Your task to perform on an android device: Open notification settings Image 0: 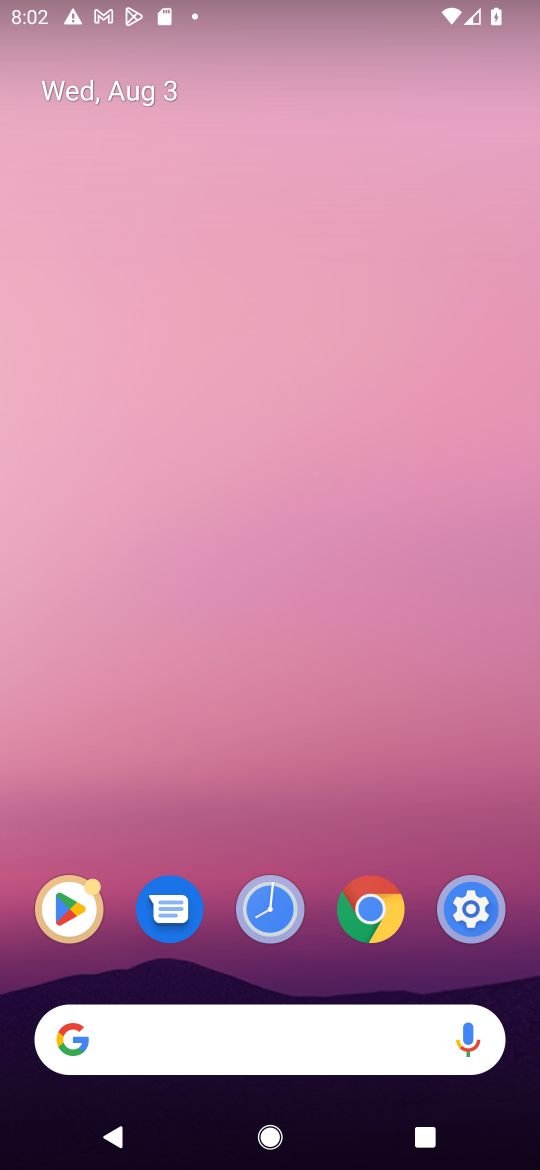
Step 0: drag from (403, 802) to (450, 150)
Your task to perform on an android device: Open notification settings Image 1: 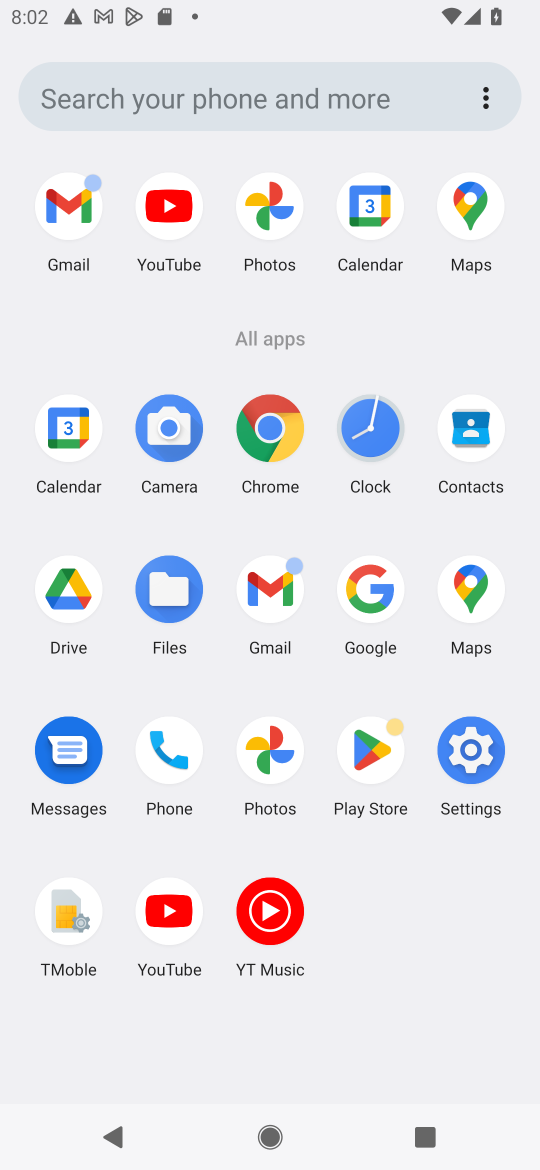
Step 1: click (470, 753)
Your task to perform on an android device: Open notification settings Image 2: 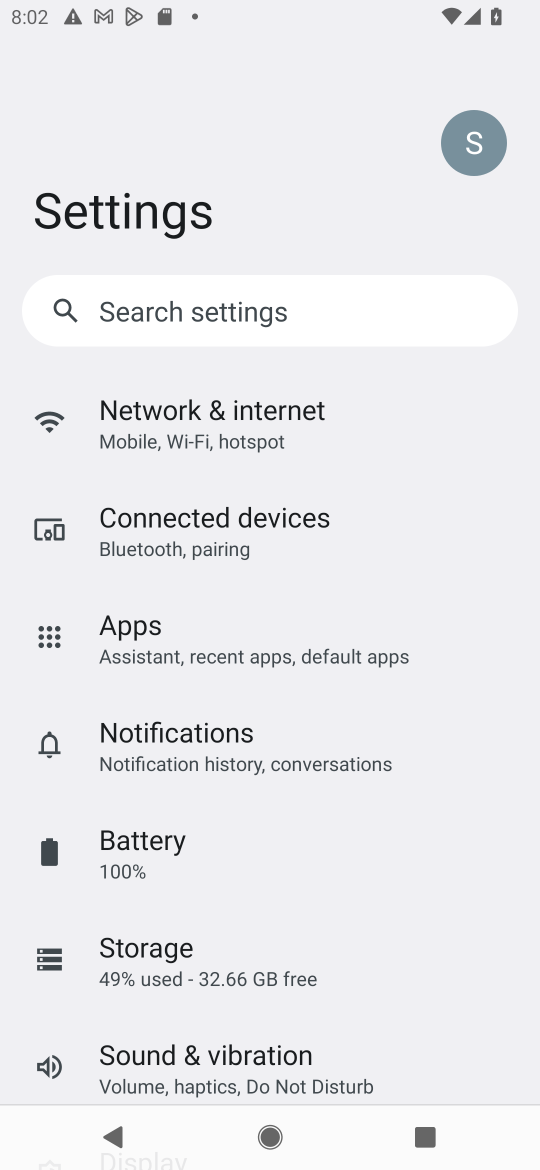
Step 2: drag from (475, 852) to (476, 672)
Your task to perform on an android device: Open notification settings Image 3: 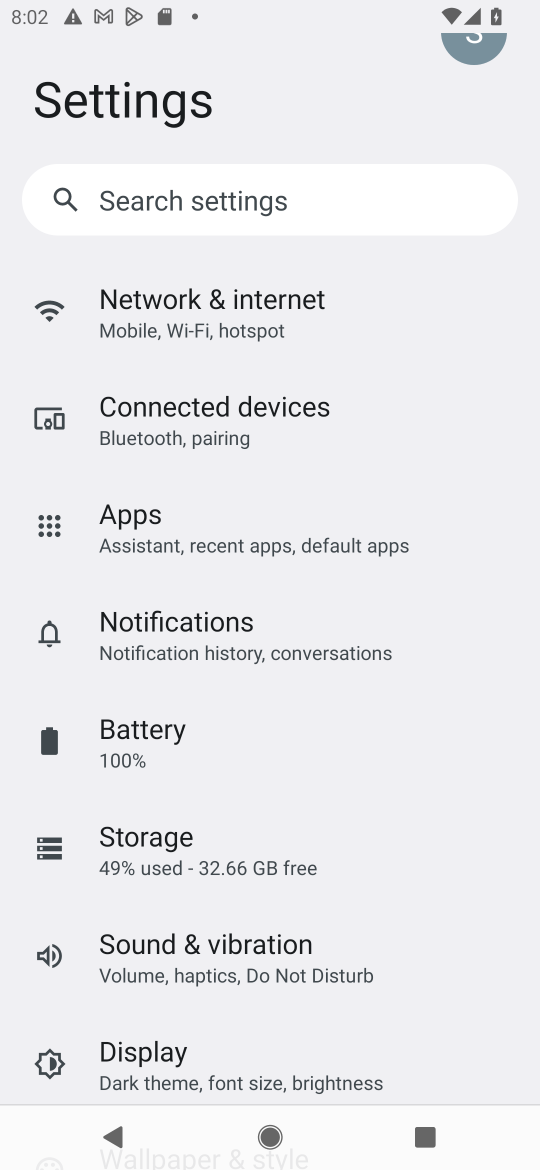
Step 3: drag from (442, 896) to (448, 746)
Your task to perform on an android device: Open notification settings Image 4: 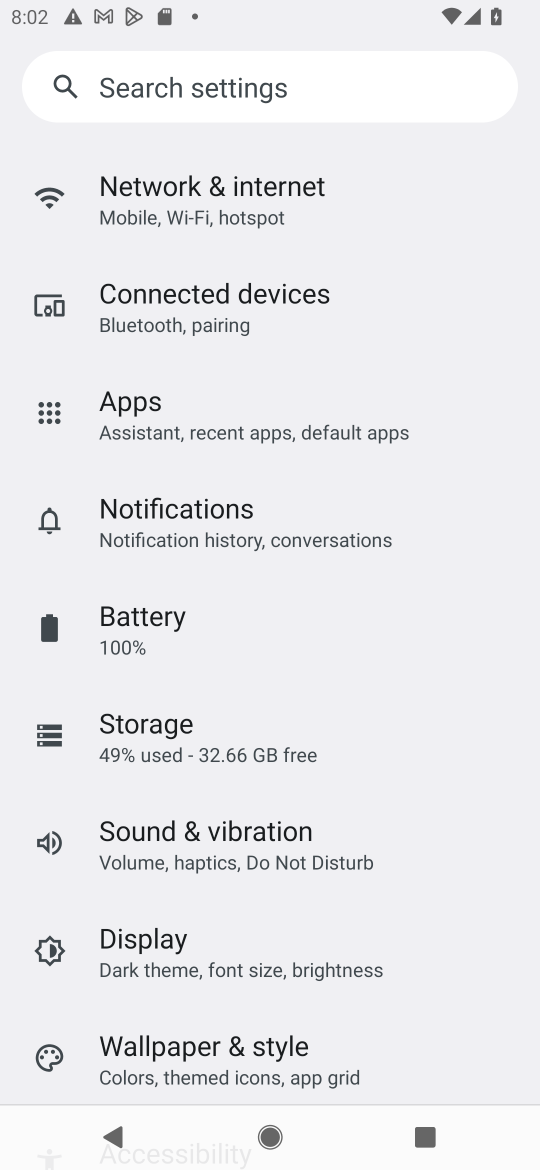
Step 4: drag from (480, 1000) to (474, 743)
Your task to perform on an android device: Open notification settings Image 5: 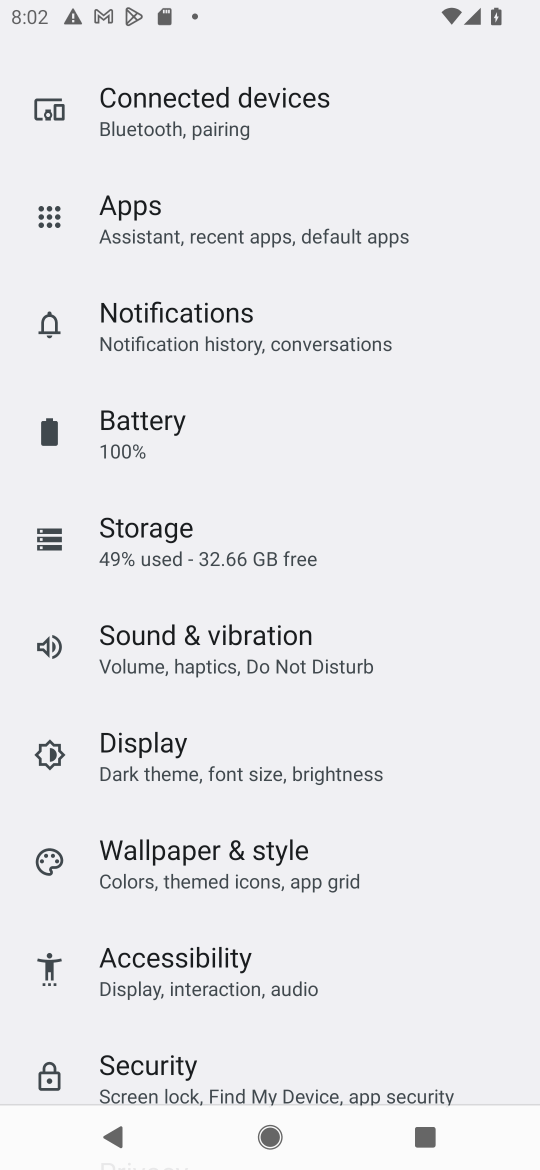
Step 5: drag from (429, 940) to (459, 569)
Your task to perform on an android device: Open notification settings Image 6: 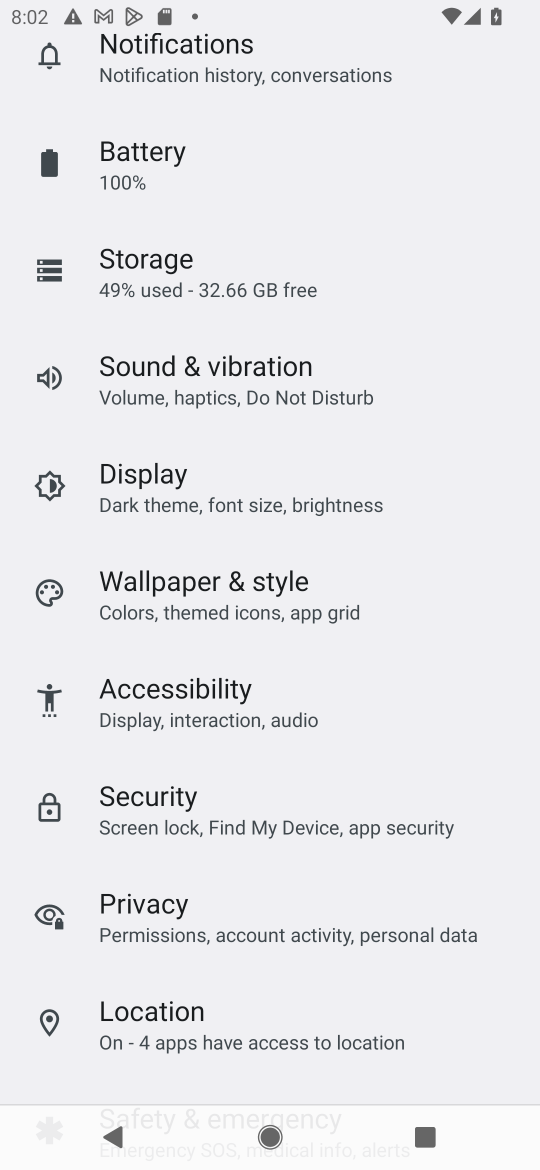
Step 6: drag from (460, 1011) to (474, 759)
Your task to perform on an android device: Open notification settings Image 7: 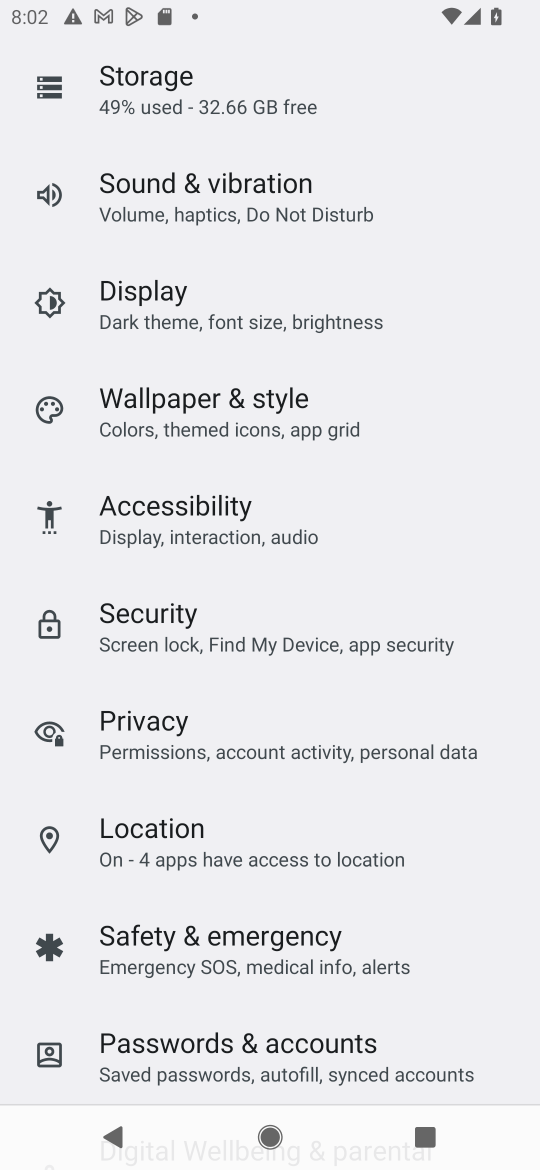
Step 7: drag from (461, 1006) to (460, 695)
Your task to perform on an android device: Open notification settings Image 8: 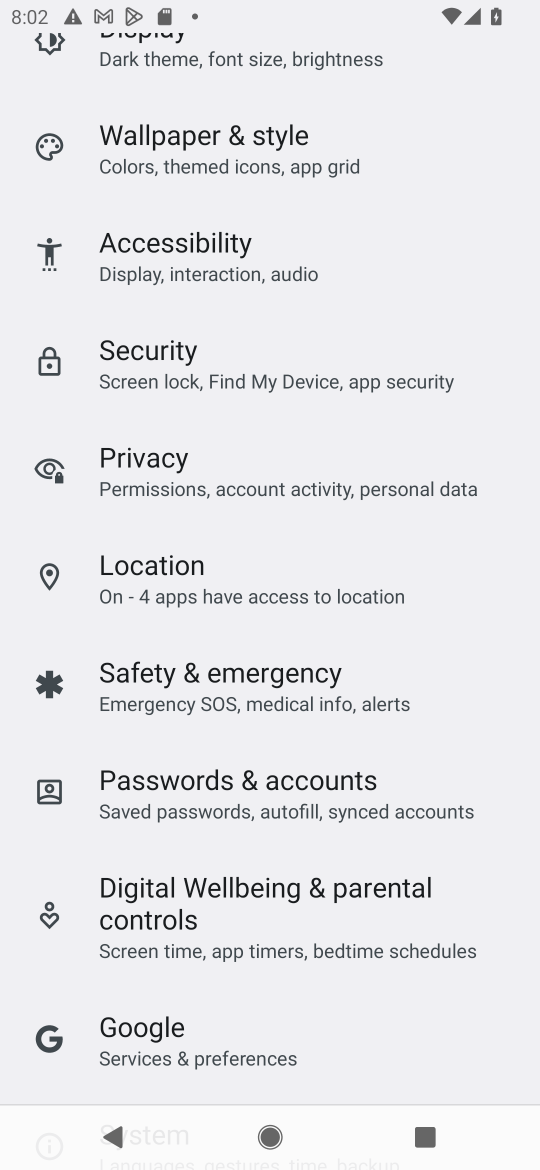
Step 8: drag from (450, 1031) to (456, 734)
Your task to perform on an android device: Open notification settings Image 9: 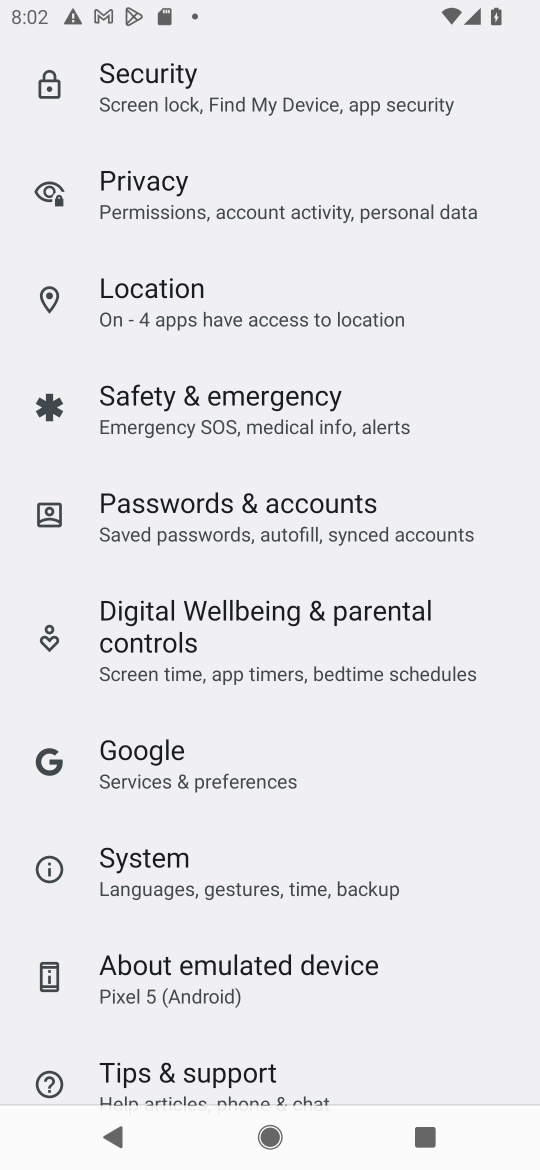
Step 9: drag from (493, 613) to (500, 714)
Your task to perform on an android device: Open notification settings Image 10: 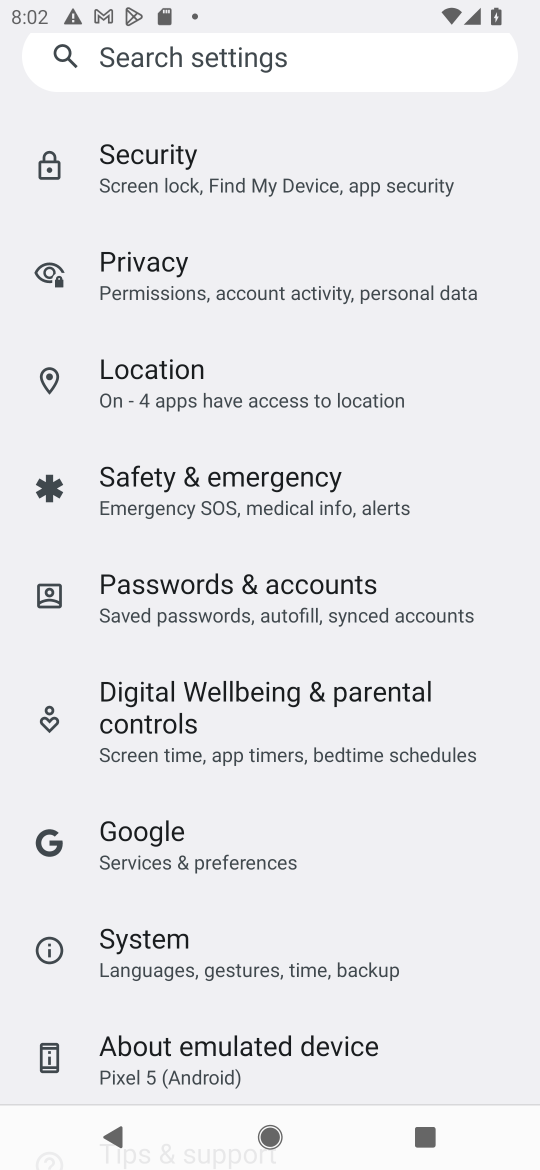
Step 10: drag from (472, 466) to (494, 612)
Your task to perform on an android device: Open notification settings Image 11: 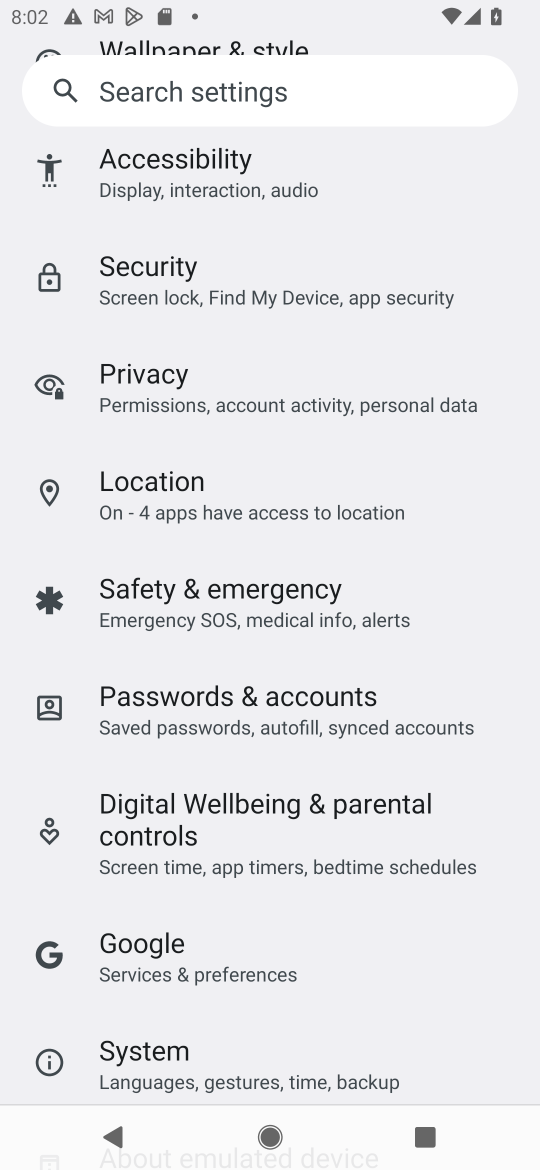
Step 11: drag from (488, 349) to (491, 545)
Your task to perform on an android device: Open notification settings Image 12: 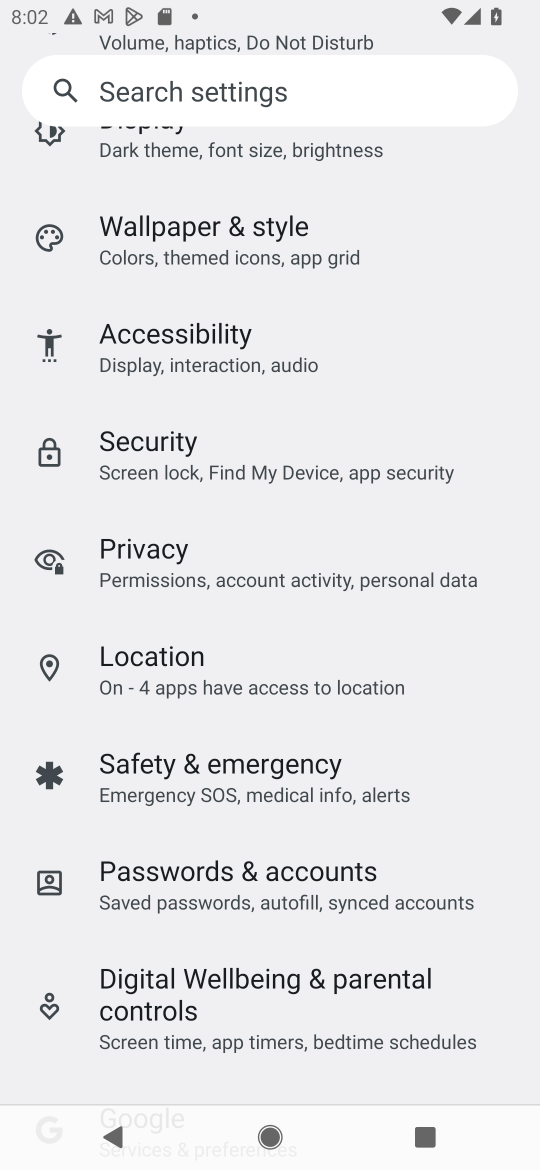
Step 12: drag from (488, 367) to (462, 565)
Your task to perform on an android device: Open notification settings Image 13: 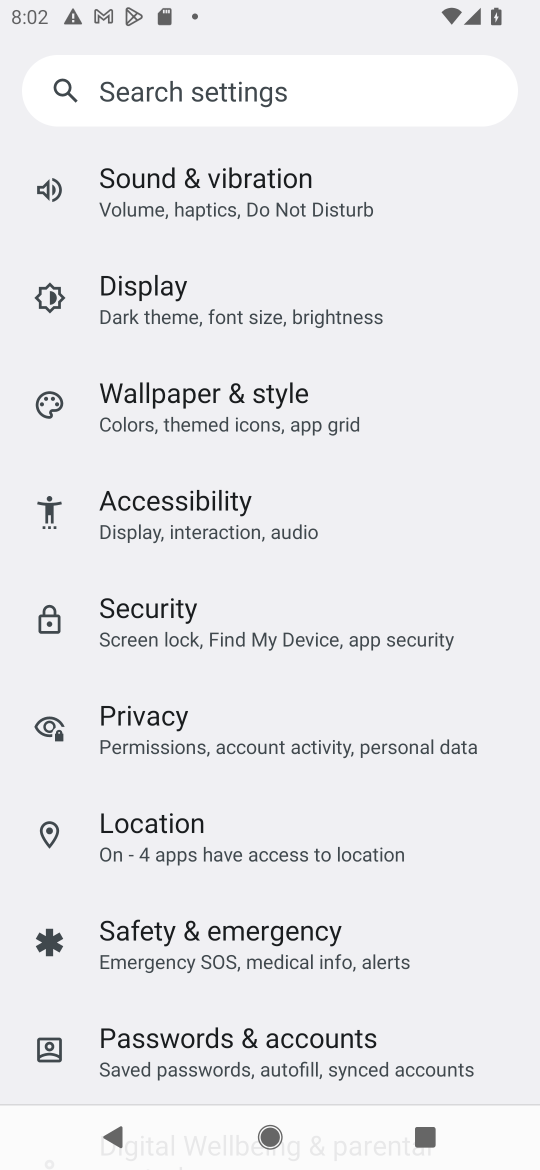
Step 13: drag from (478, 329) to (469, 565)
Your task to perform on an android device: Open notification settings Image 14: 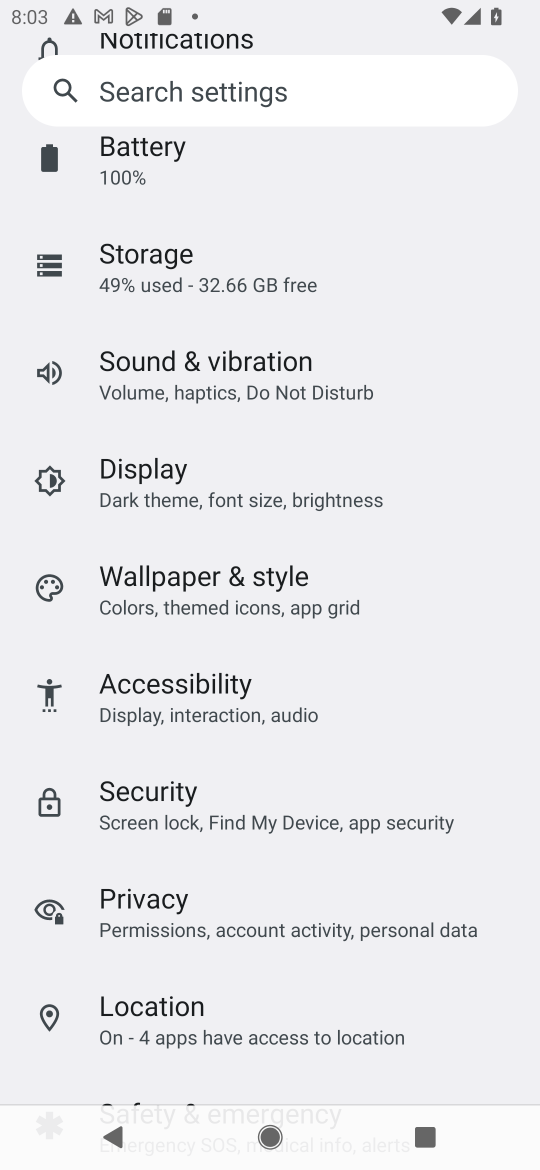
Step 14: drag from (449, 308) to (429, 532)
Your task to perform on an android device: Open notification settings Image 15: 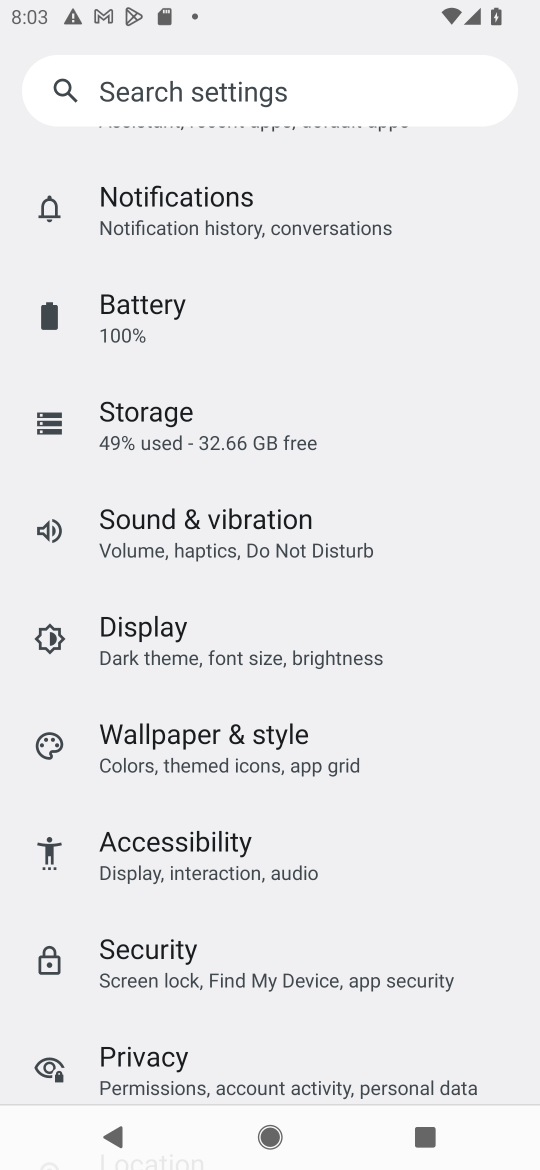
Step 15: drag from (447, 284) to (441, 565)
Your task to perform on an android device: Open notification settings Image 16: 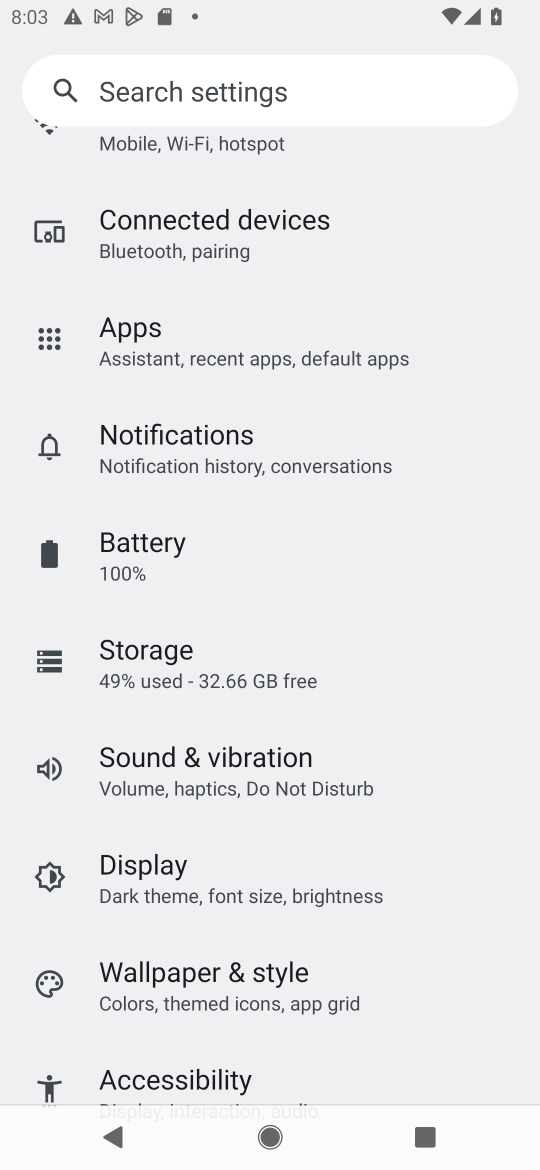
Step 16: click (324, 466)
Your task to perform on an android device: Open notification settings Image 17: 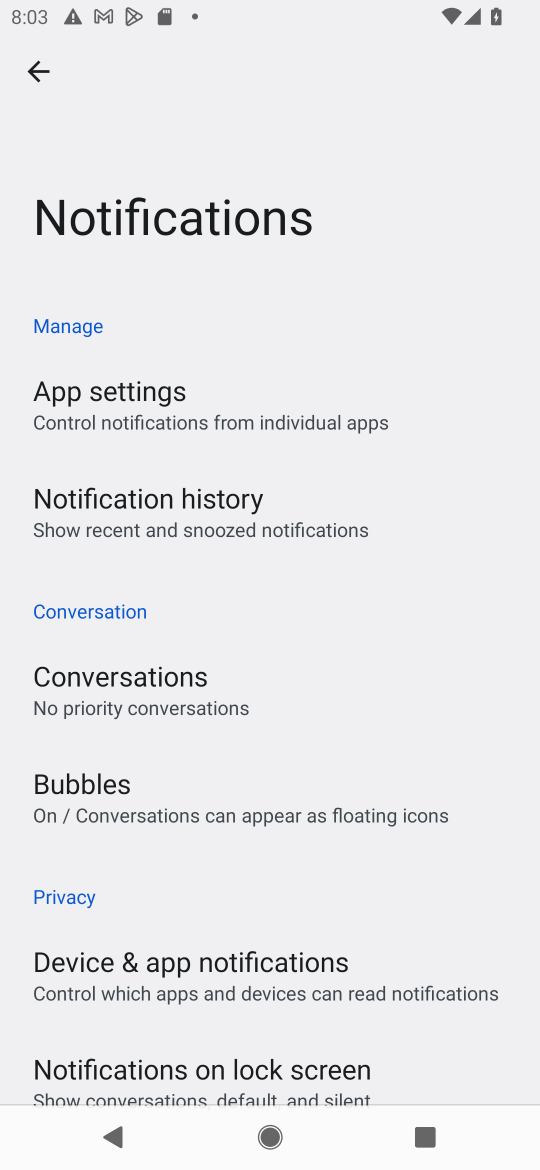
Step 17: task complete